Your task to perform on an android device: open app "Life360: Find Family & Friends" (install if not already installed) Image 0: 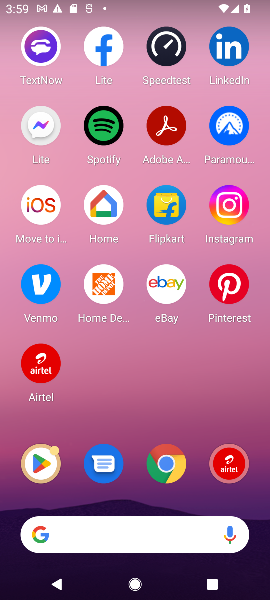
Step 0: drag from (104, 534) to (104, 82)
Your task to perform on an android device: open app "Life360: Find Family & Friends" (install if not already installed) Image 1: 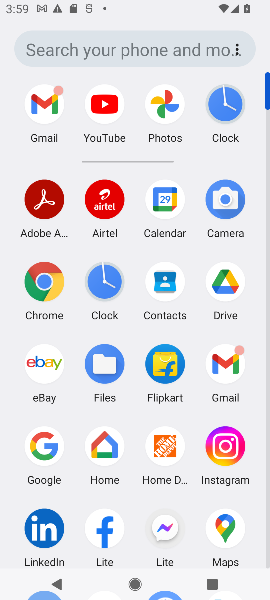
Step 1: drag from (135, 542) to (155, 171)
Your task to perform on an android device: open app "Life360: Find Family & Friends" (install if not already installed) Image 2: 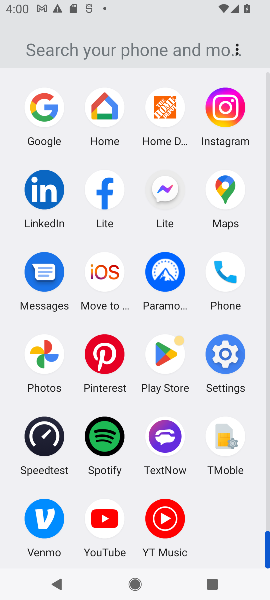
Step 2: click (162, 352)
Your task to perform on an android device: open app "Life360: Find Family & Friends" (install if not already installed) Image 3: 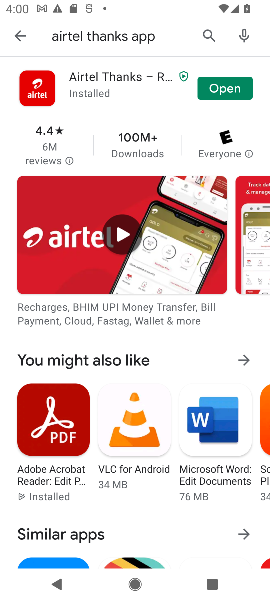
Step 3: click (212, 31)
Your task to perform on an android device: open app "Life360: Find Family & Friends" (install if not already installed) Image 4: 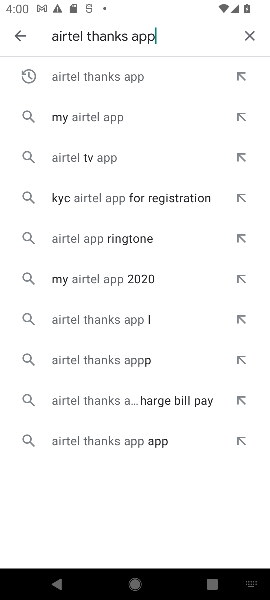
Step 4: click (245, 35)
Your task to perform on an android device: open app "Life360: Find Family & Friends" (install if not already installed) Image 5: 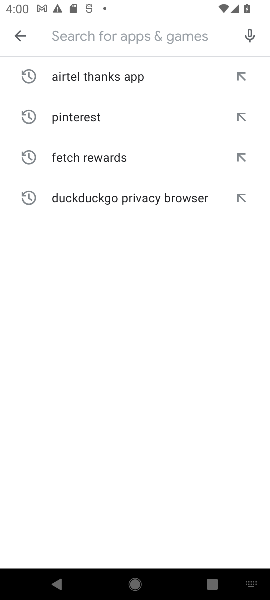
Step 5: type "Life360: Find Family & Friends"
Your task to perform on an android device: open app "Life360: Find Family & Friends" (install if not already installed) Image 6: 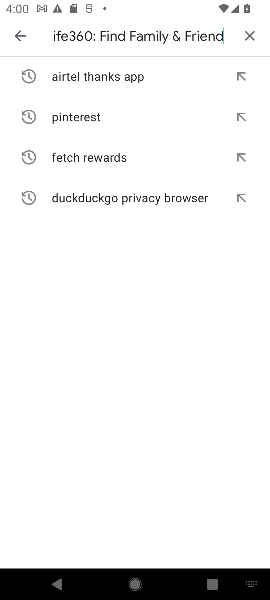
Step 6: type ""
Your task to perform on an android device: open app "Life360: Find Family & Friends" (install if not already installed) Image 7: 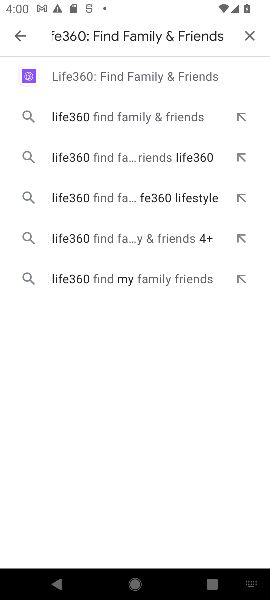
Step 7: click (121, 78)
Your task to perform on an android device: open app "Life360: Find Family & Friends" (install if not already installed) Image 8: 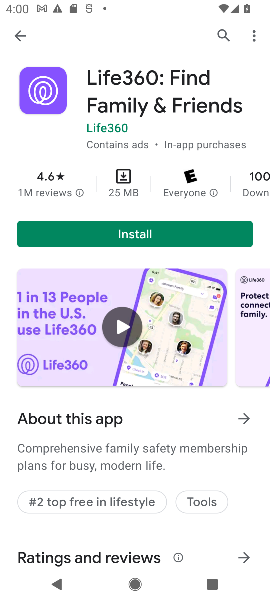
Step 8: click (136, 231)
Your task to perform on an android device: open app "Life360: Find Family & Friends" (install if not already installed) Image 9: 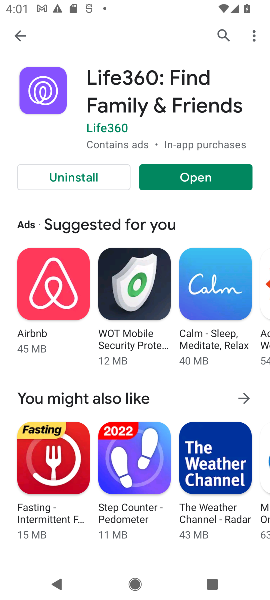
Step 9: click (196, 177)
Your task to perform on an android device: open app "Life360: Find Family & Friends" (install if not already installed) Image 10: 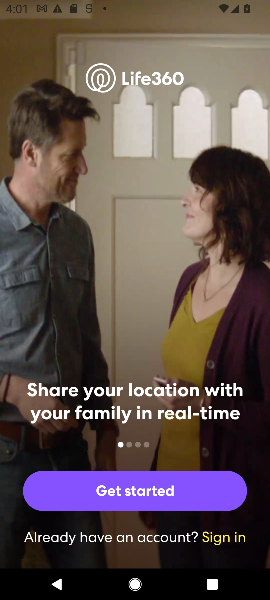
Step 10: task complete